Your task to perform on an android device: Do I have any events today? Image 0: 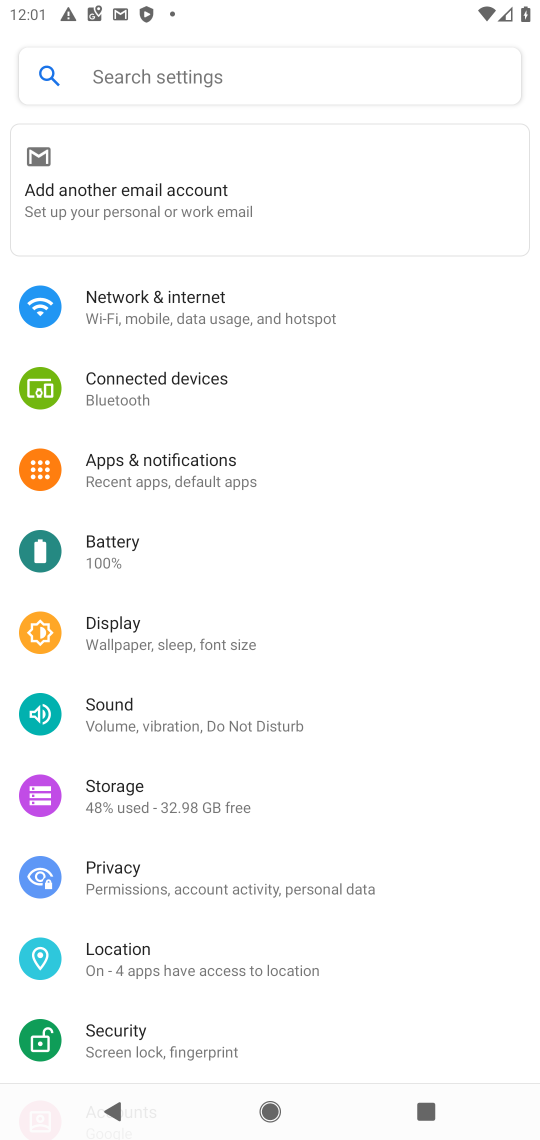
Step 0: press home button
Your task to perform on an android device: Do I have any events today? Image 1: 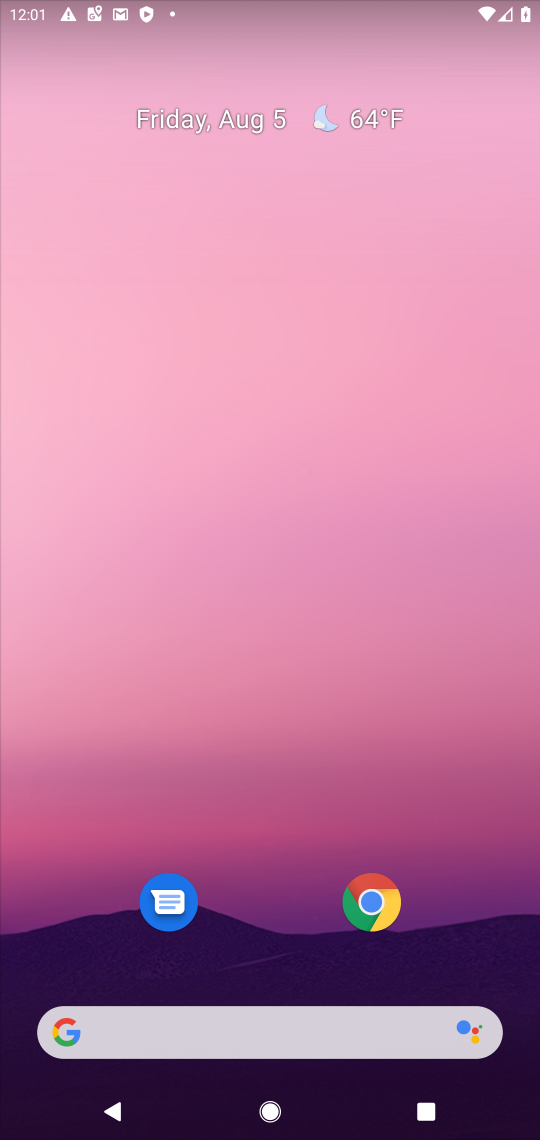
Step 1: drag from (313, 788) to (422, 45)
Your task to perform on an android device: Do I have any events today? Image 2: 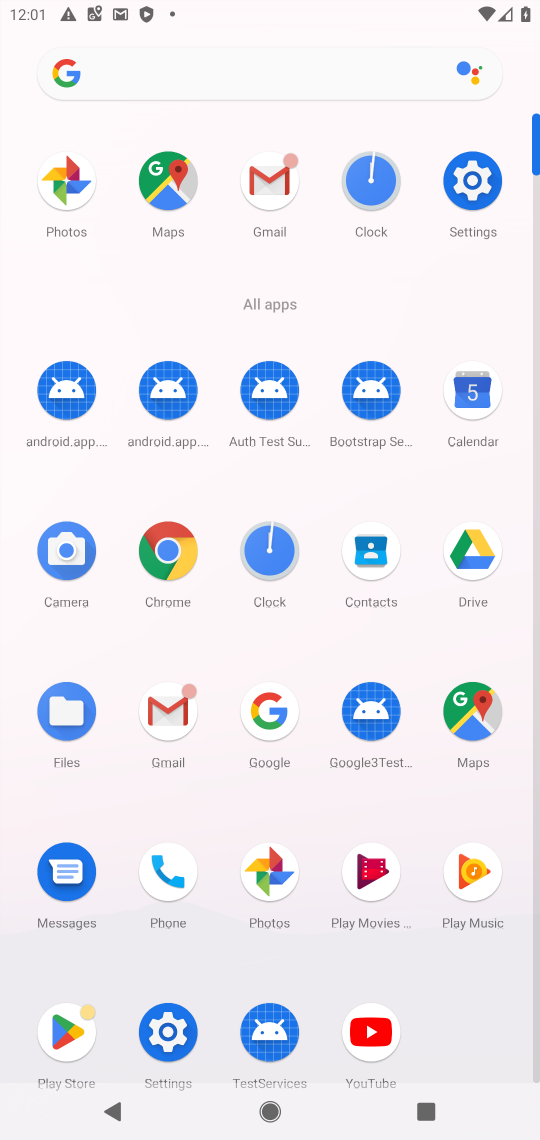
Step 2: press home button
Your task to perform on an android device: Do I have any events today? Image 3: 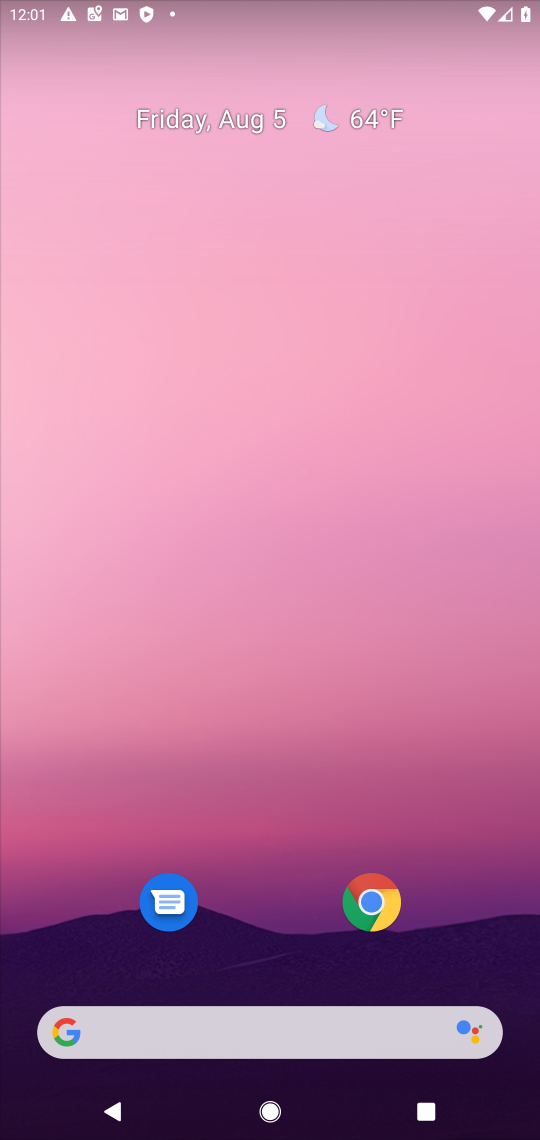
Step 3: drag from (278, 939) to (362, 2)
Your task to perform on an android device: Do I have any events today? Image 4: 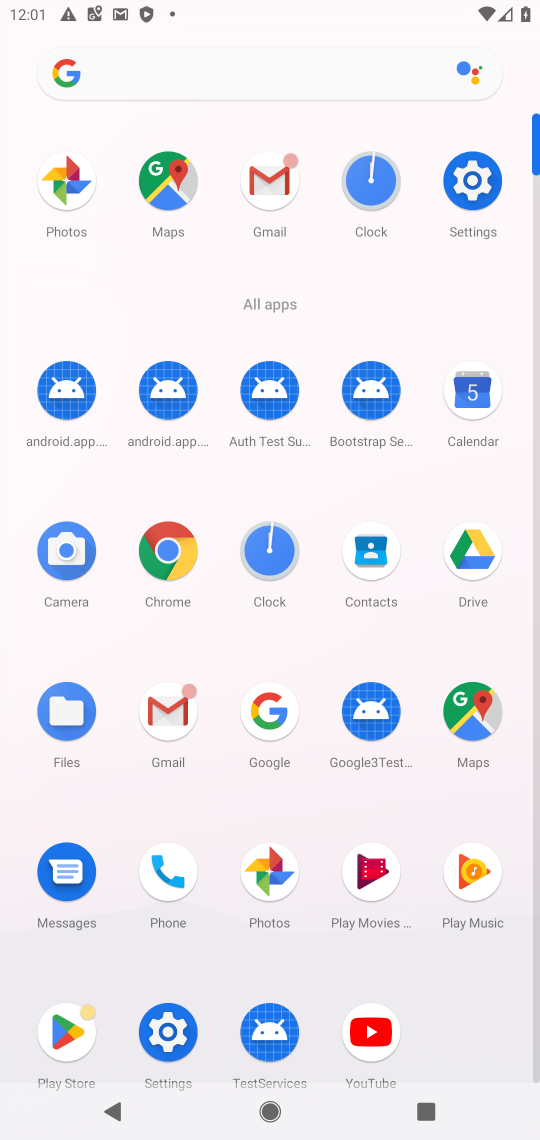
Step 4: click (481, 386)
Your task to perform on an android device: Do I have any events today? Image 5: 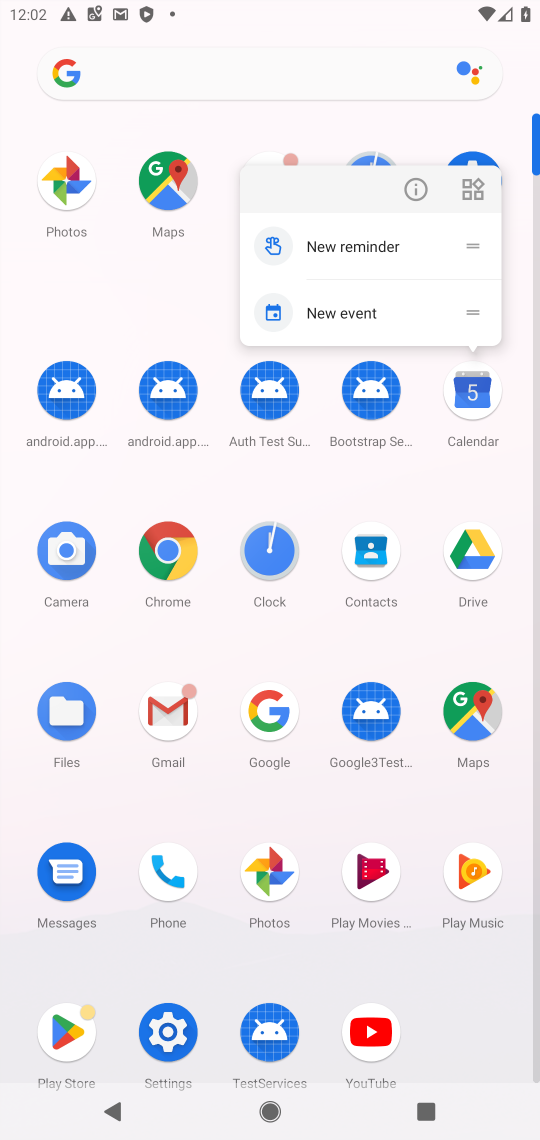
Step 5: click (459, 385)
Your task to perform on an android device: Do I have any events today? Image 6: 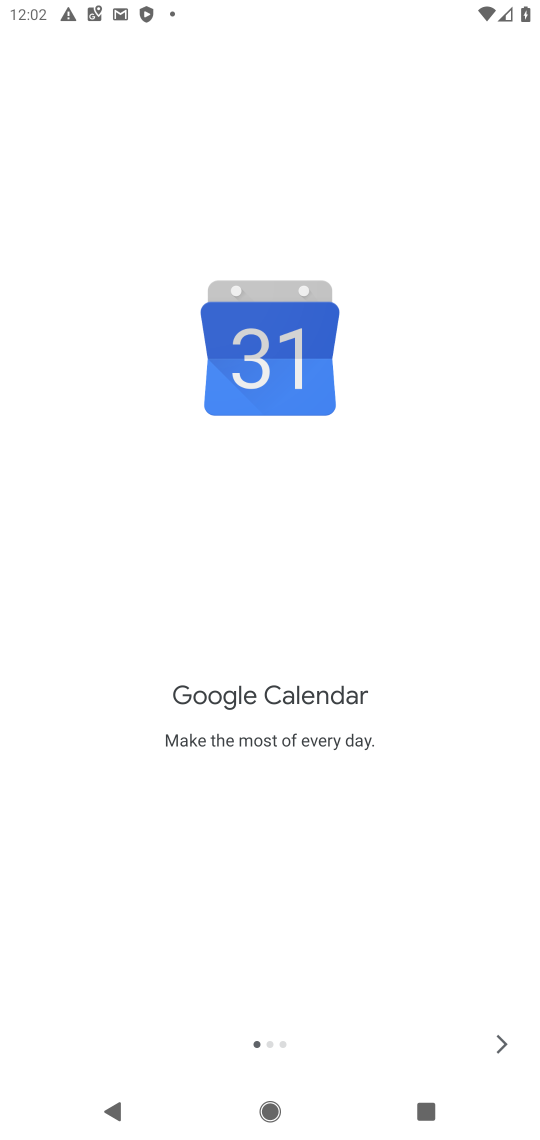
Step 6: click (496, 1025)
Your task to perform on an android device: Do I have any events today? Image 7: 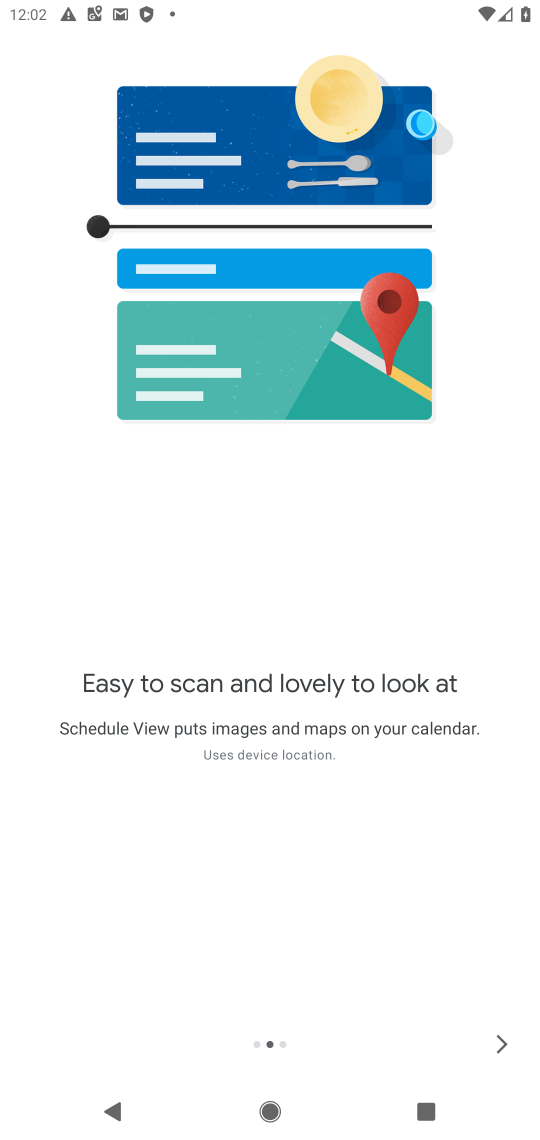
Step 7: click (496, 1025)
Your task to perform on an android device: Do I have any events today? Image 8: 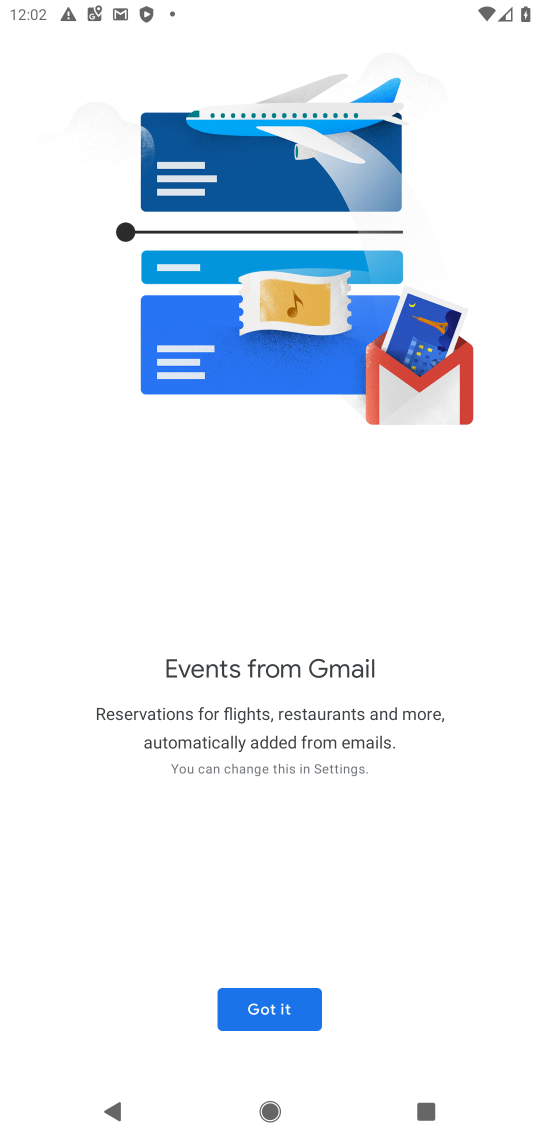
Step 8: click (253, 1010)
Your task to perform on an android device: Do I have any events today? Image 9: 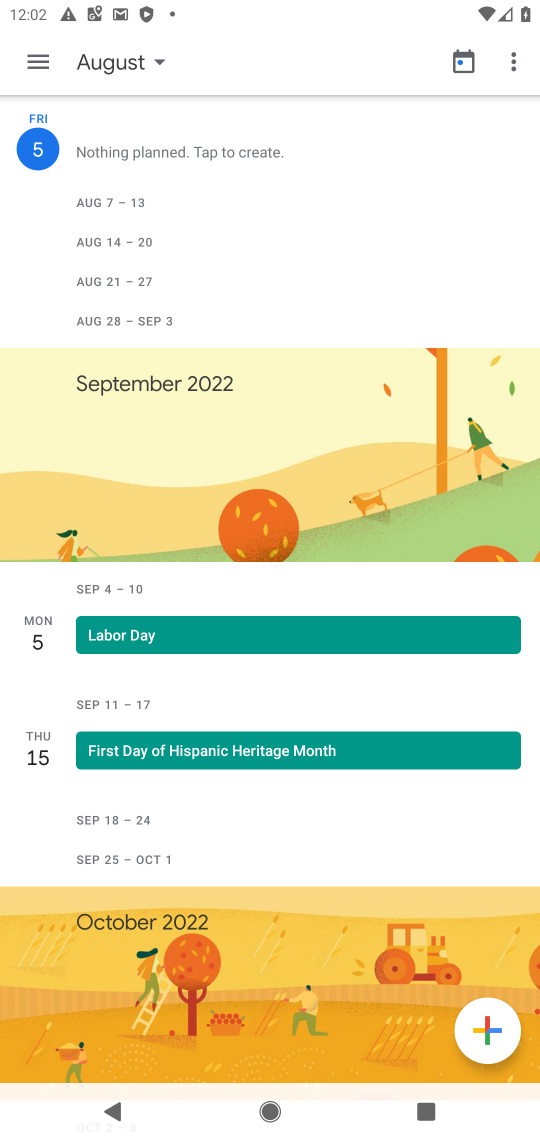
Step 9: click (30, 54)
Your task to perform on an android device: Do I have any events today? Image 10: 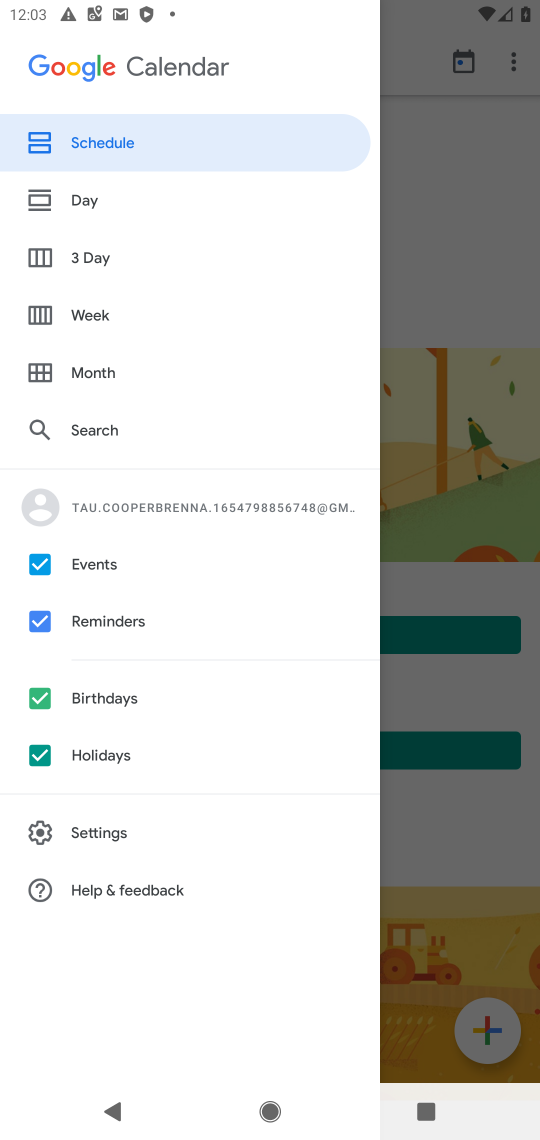
Step 10: click (35, 613)
Your task to perform on an android device: Do I have any events today? Image 11: 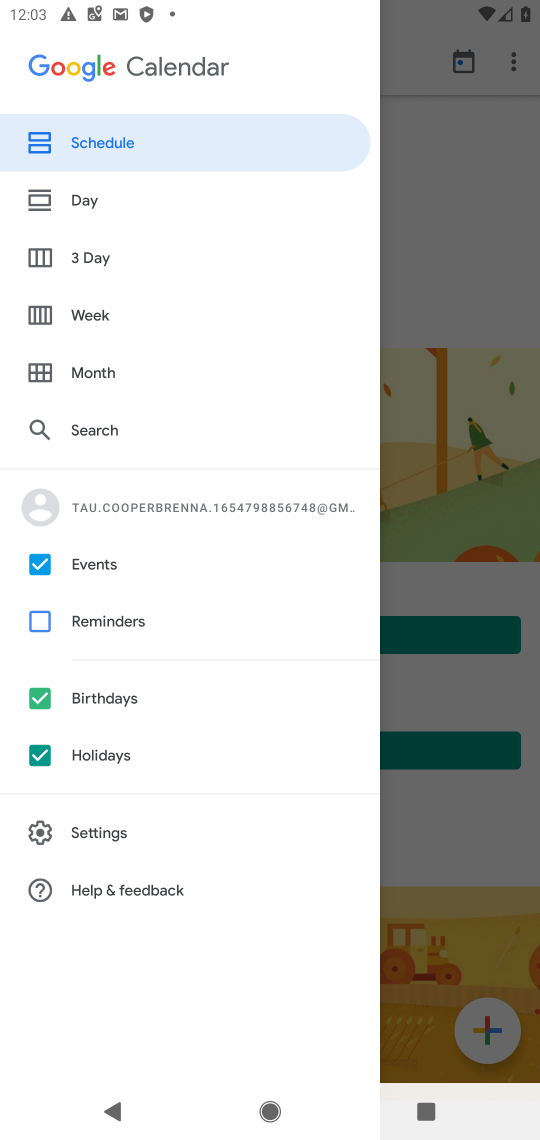
Step 11: click (43, 692)
Your task to perform on an android device: Do I have any events today? Image 12: 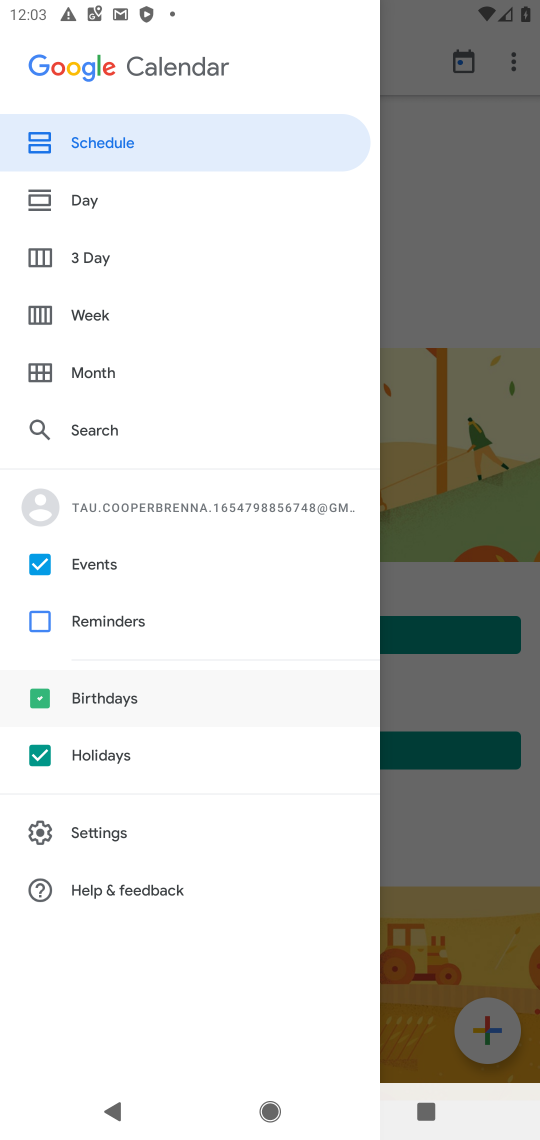
Step 12: click (36, 746)
Your task to perform on an android device: Do I have any events today? Image 13: 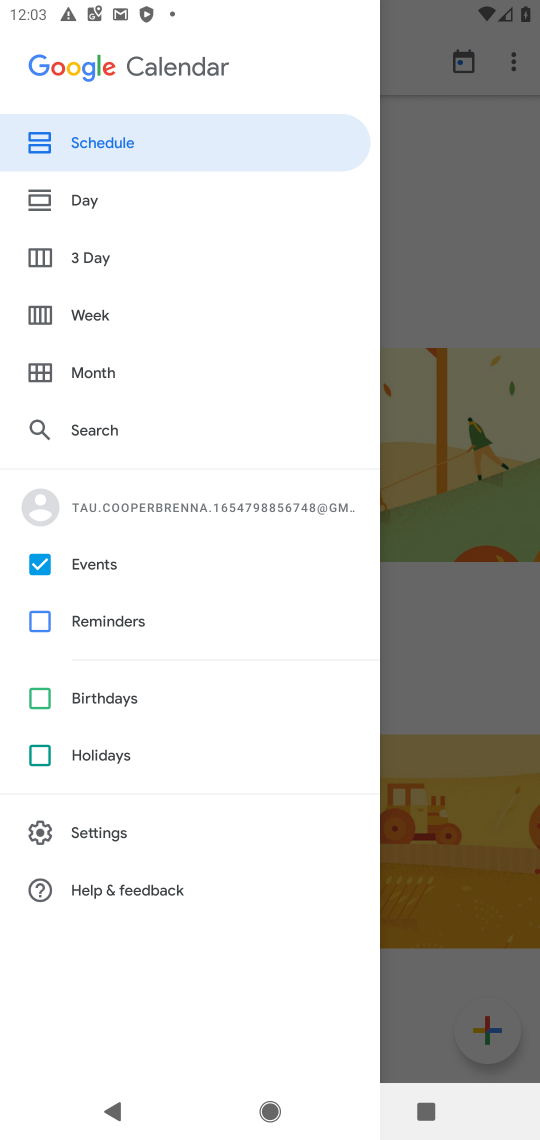
Step 13: click (63, 194)
Your task to perform on an android device: Do I have any events today? Image 14: 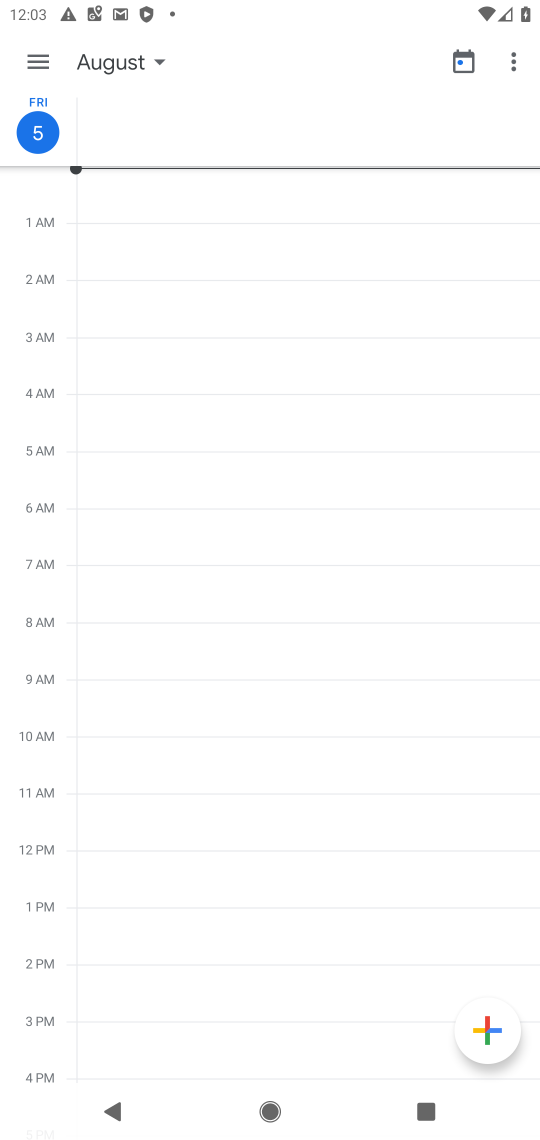
Step 14: task complete